Your task to perform on an android device: Open eBay Image 0: 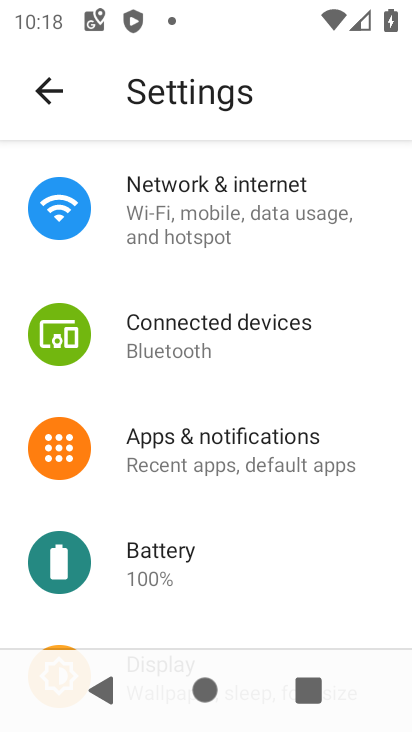
Step 0: press home button
Your task to perform on an android device: Open eBay Image 1: 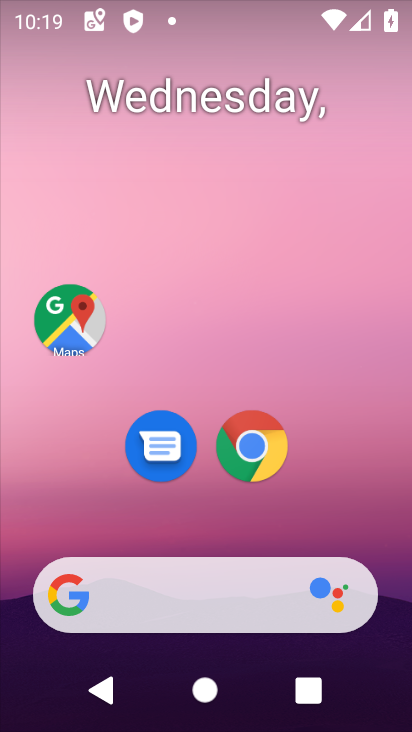
Step 1: click (250, 449)
Your task to perform on an android device: Open eBay Image 2: 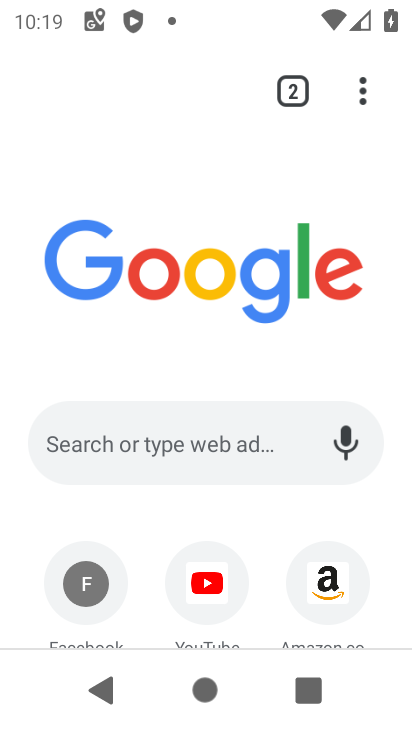
Step 2: drag from (250, 635) to (265, 320)
Your task to perform on an android device: Open eBay Image 3: 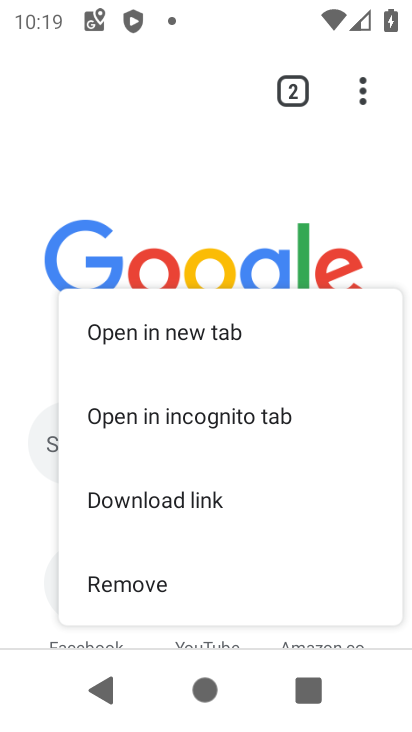
Step 3: click (191, 86)
Your task to perform on an android device: Open eBay Image 4: 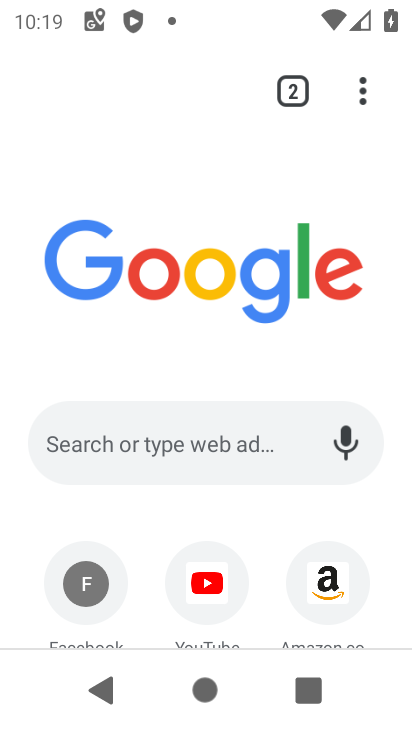
Step 4: drag from (251, 580) to (299, 349)
Your task to perform on an android device: Open eBay Image 5: 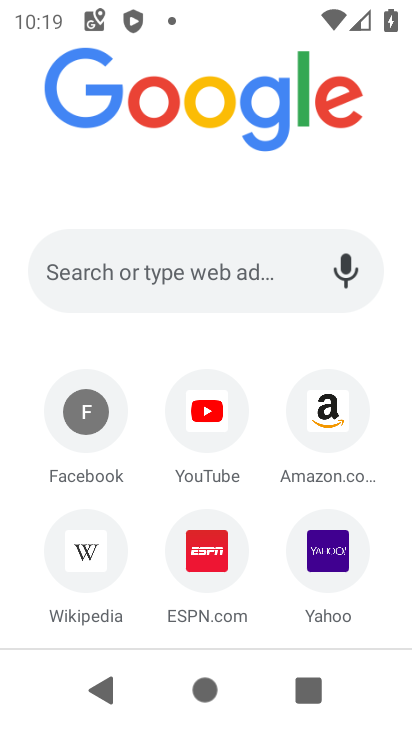
Step 5: drag from (266, 536) to (301, 334)
Your task to perform on an android device: Open eBay Image 6: 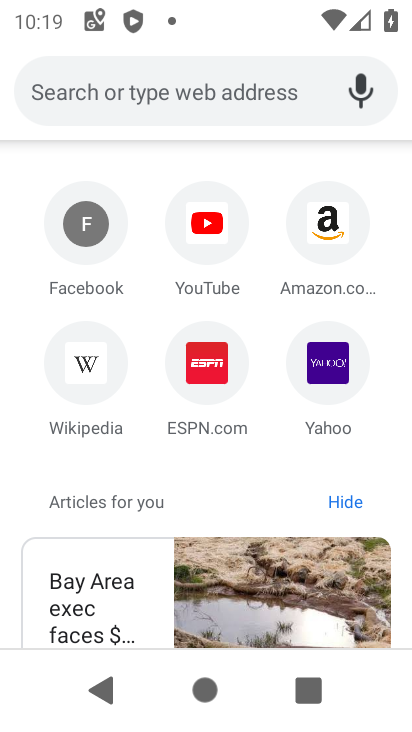
Step 6: click (237, 81)
Your task to perform on an android device: Open eBay Image 7: 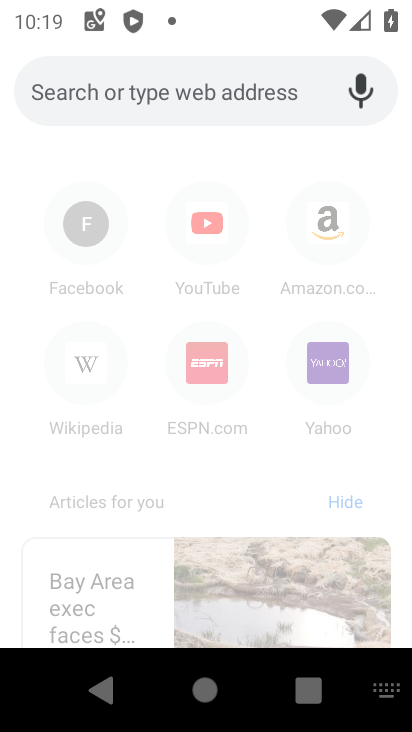
Step 7: type "www.ebay.com"
Your task to perform on an android device: Open eBay Image 8: 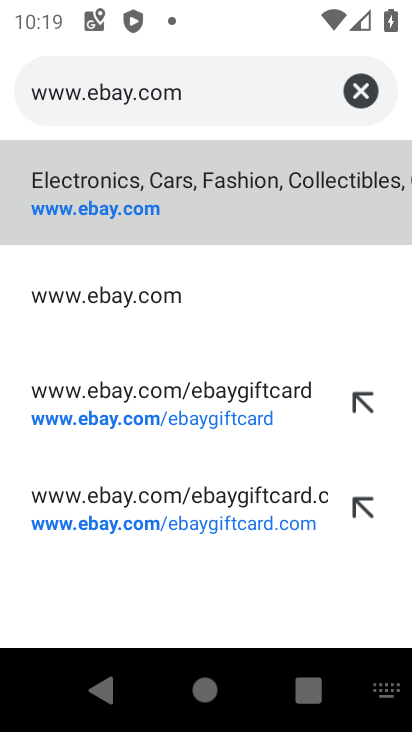
Step 8: click (112, 199)
Your task to perform on an android device: Open eBay Image 9: 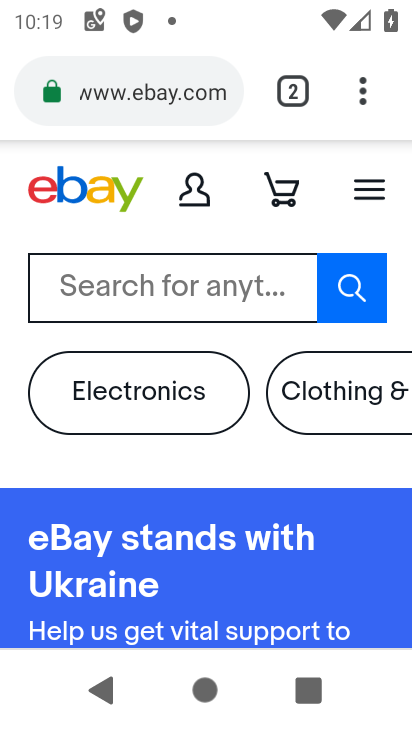
Step 9: task complete